Your task to perform on an android device: turn off location Image 0: 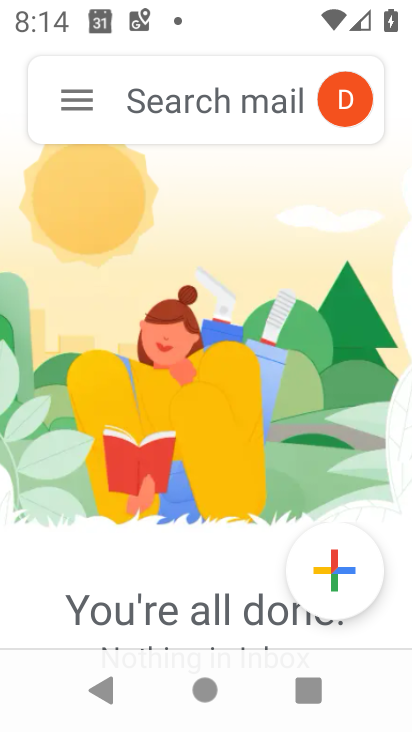
Step 0: press home button
Your task to perform on an android device: turn off location Image 1: 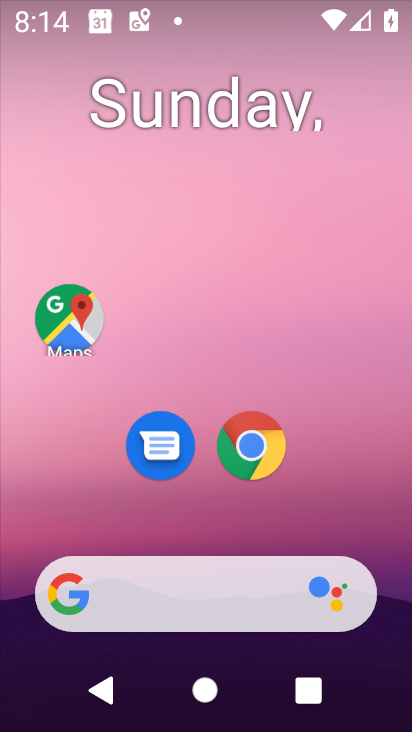
Step 1: drag from (42, 571) to (277, 93)
Your task to perform on an android device: turn off location Image 2: 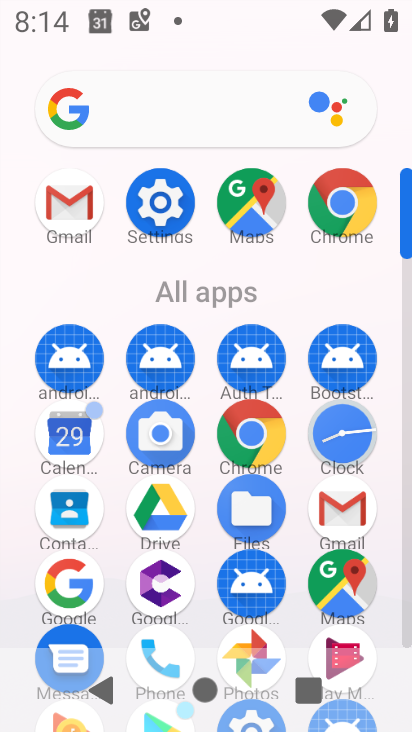
Step 2: click (149, 214)
Your task to perform on an android device: turn off location Image 3: 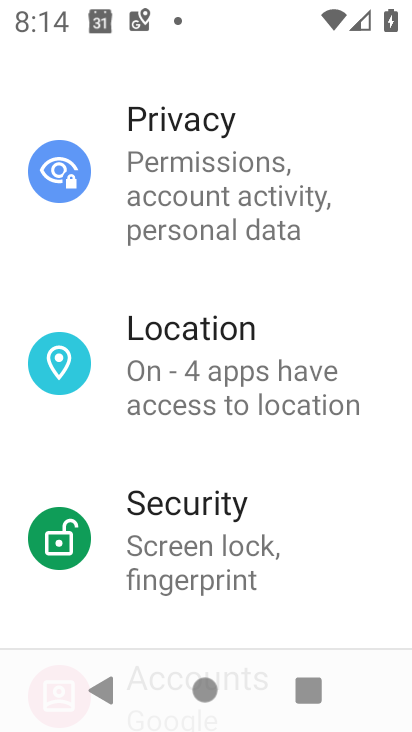
Step 3: click (160, 368)
Your task to perform on an android device: turn off location Image 4: 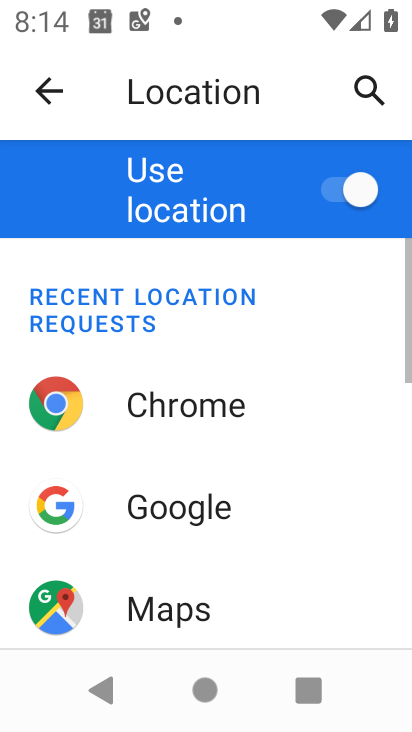
Step 4: click (368, 193)
Your task to perform on an android device: turn off location Image 5: 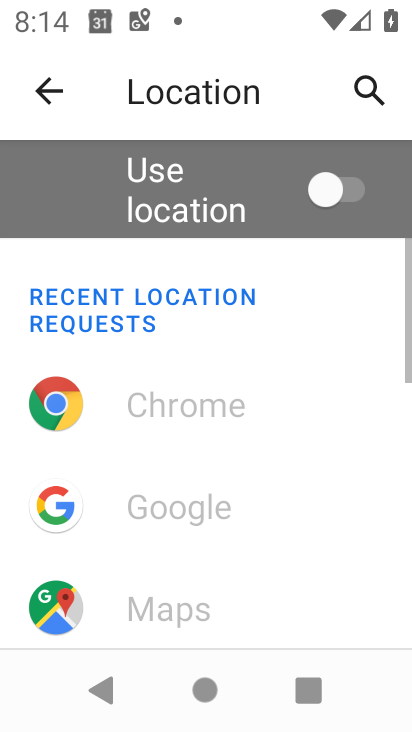
Step 5: task complete